Your task to perform on an android device: Go to settings Image 0: 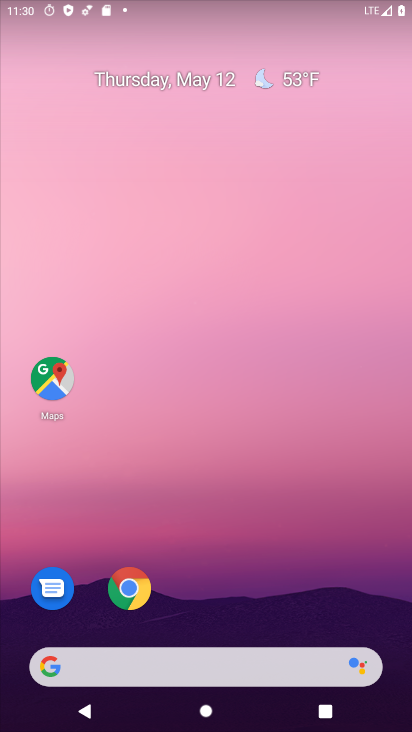
Step 0: drag from (292, 392) to (308, 67)
Your task to perform on an android device: Go to settings Image 1: 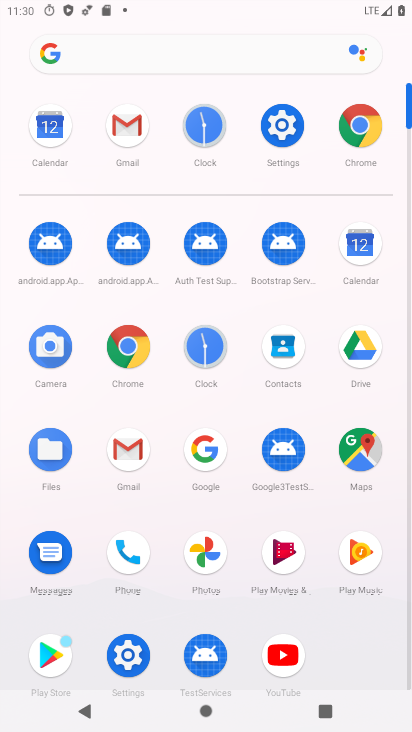
Step 1: click (287, 116)
Your task to perform on an android device: Go to settings Image 2: 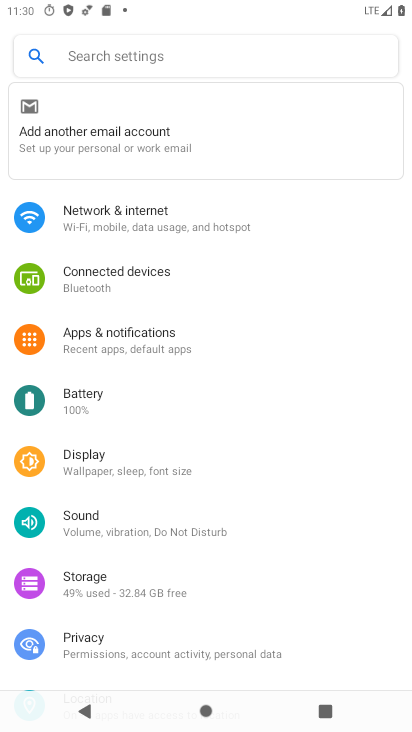
Step 2: task complete